Your task to perform on an android device: Open Yahoo.com Image 0: 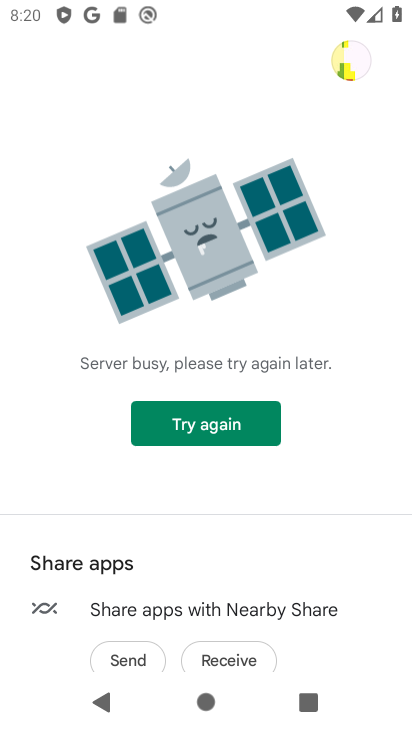
Step 0: press home button
Your task to perform on an android device: Open Yahoo.com Image 1: 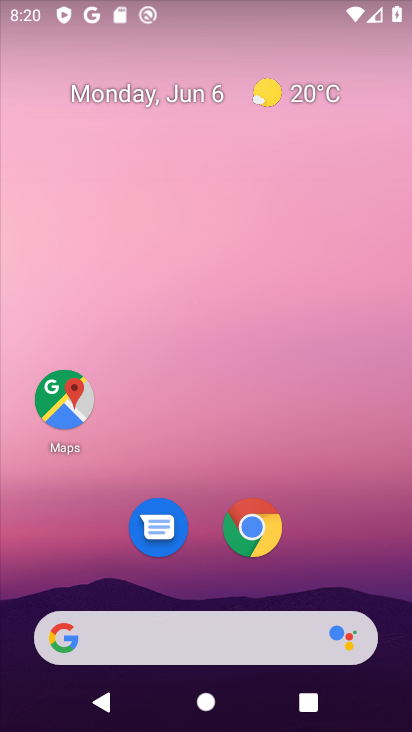
Step 1: click (251, 537)
Your task to perform on an android device: Open Yahoo.com Image 2: 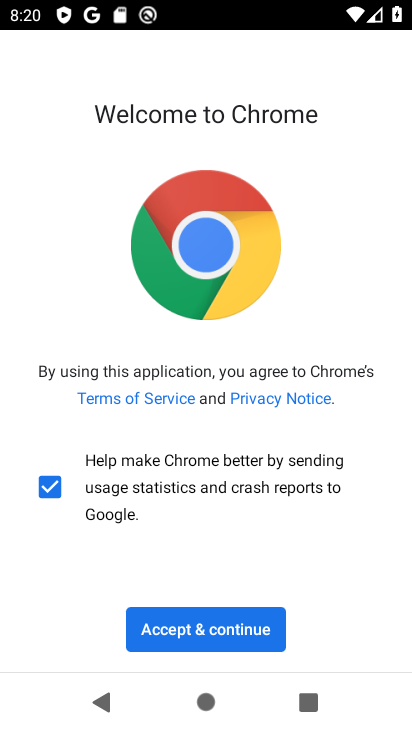
Step 2: click (164, 635)
Your task to perform on an android device: Open Yahoo.com Image 3: 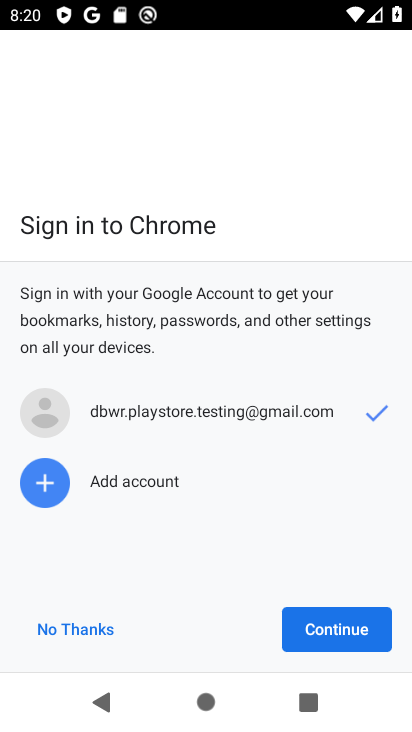
Step 3: click (311, 625)
Your task to perform on an android device: Open Yahoo.com Image 4: 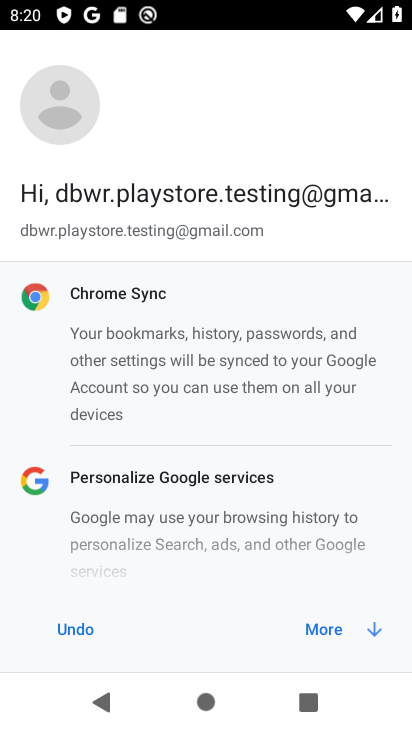
Step 4: click (311, 629)
Your task to perform on an android device: Open Yahoo.com Image 5: 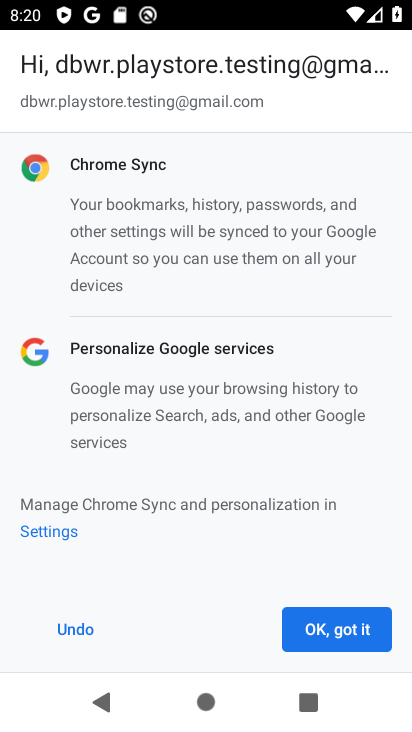
Step 5: click (311, 629)
Your task to perform on an android device: Open Yahoo.com Image 6: 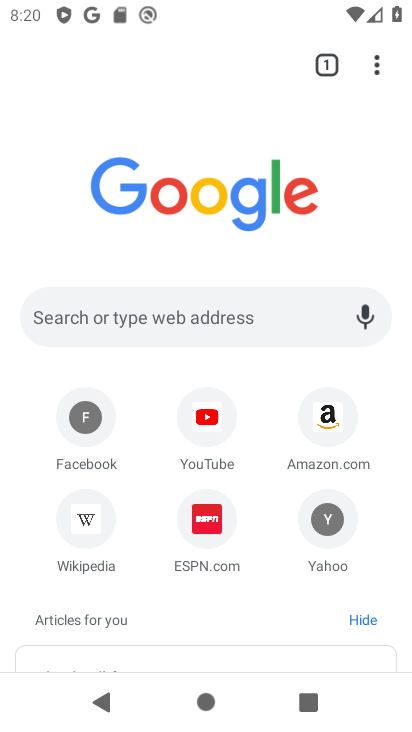
Step 6: click (206, 324)
Your task to perform on an android device: Open Yahoo.com Image 7: 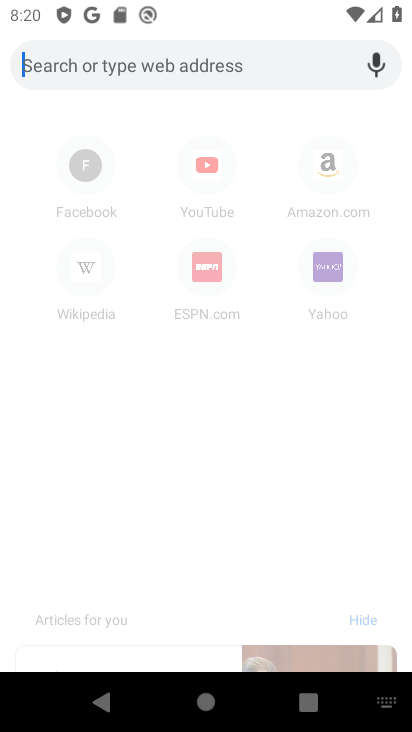
Step 7: type "Yahoo.com"
Your task to perform on an android device: Open Yahoo.com Image 8: 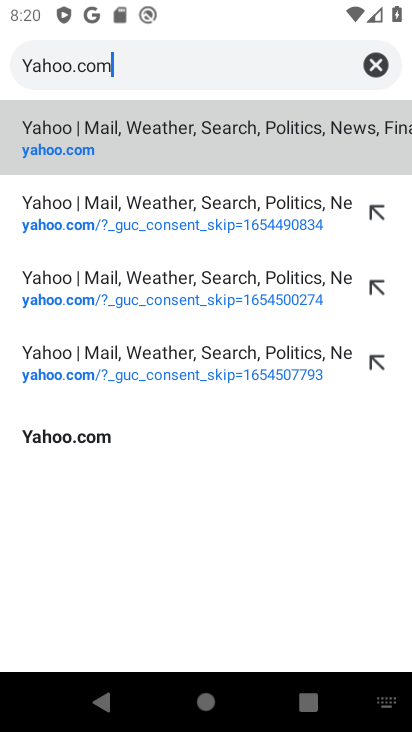
Step 8: click (57, 138)
Your task to perform on an android device: Open Yahoo.com Image 9: 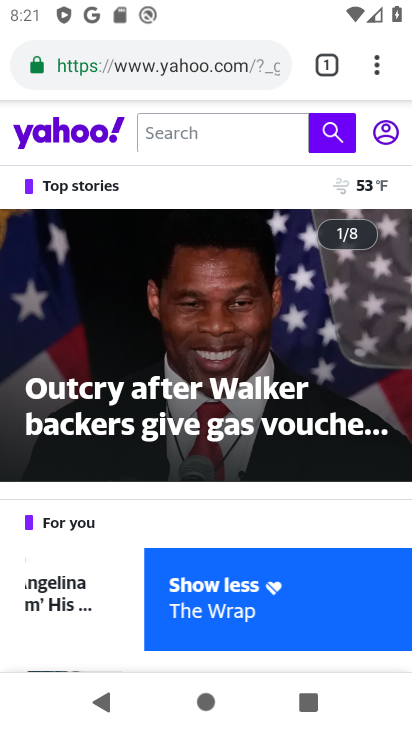
Step 9: task complete